Your task to perform on an android device: Turn on the flashlight Image 0: 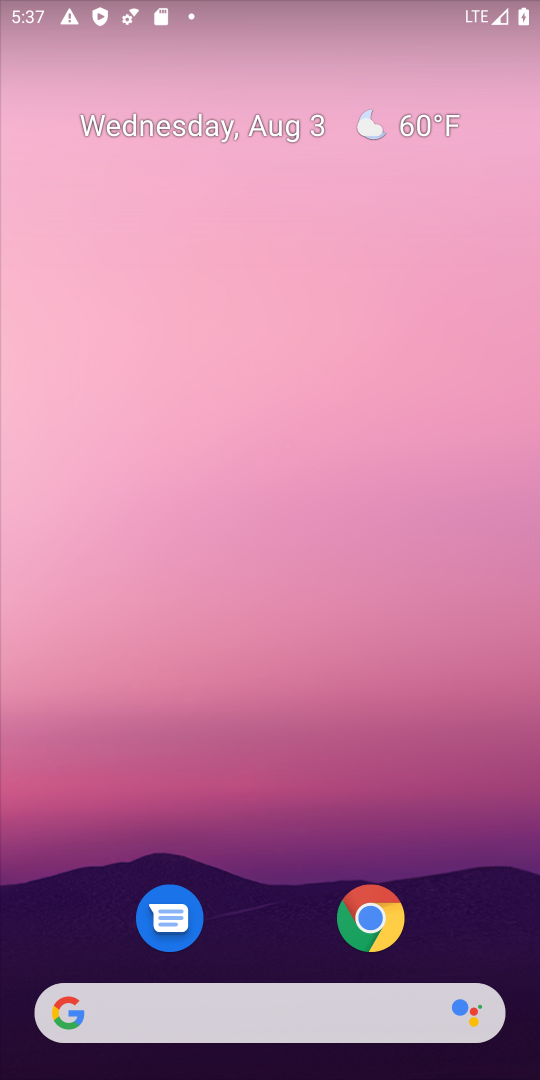
Step 0: drag from (149, 11) to (135, 792)
Your task to perform on an android device: Turn on the flashlight Image 1: 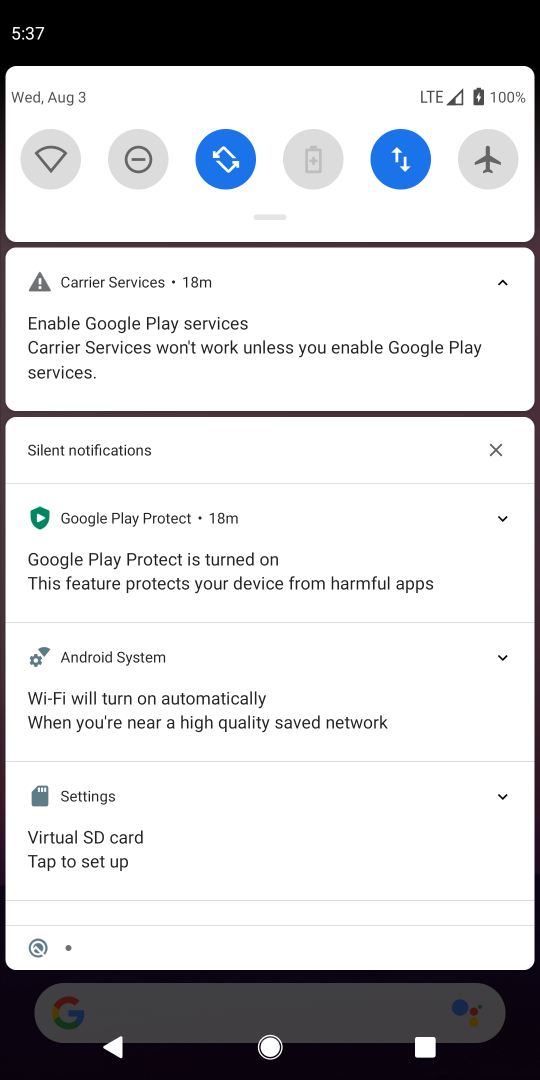
Step 1: task complete